Your task to perform on an android device: empty trash in the gmail app Image 0: 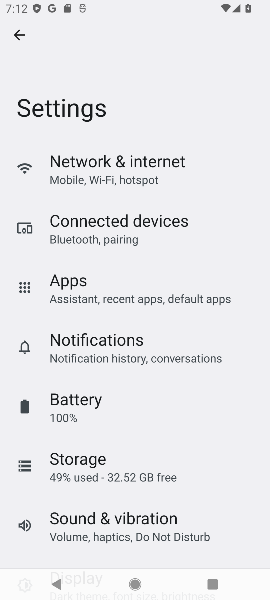
Step 0: press home button
Your task to perform on an android device: empty trash in the gmail app Image 1: 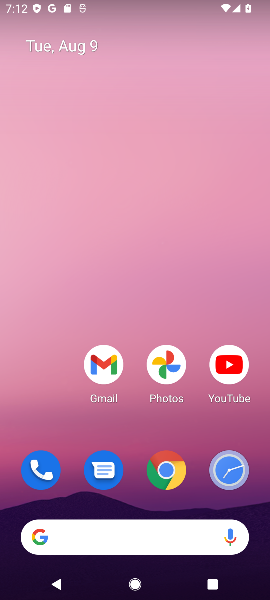
Step 1: click (91, 356)
Your task to perform on an android device: empty trash in the gmail app Image 2: 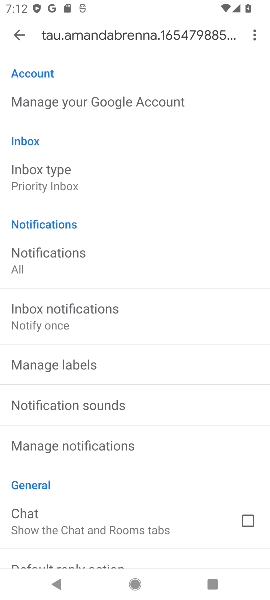
Step 2: click (12, 41)
Your task to perform on an android device: empty trash in the gmail app Image 3: 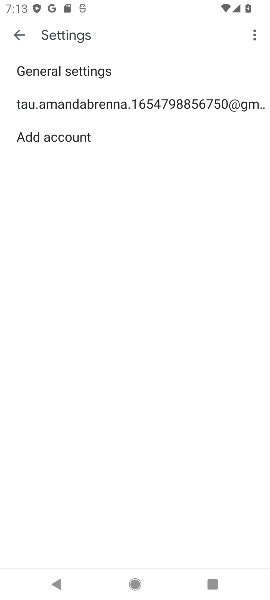
Step 3: click (20, 33)
Your task to perform on an android device: empty trash in the gmail app Image 4: 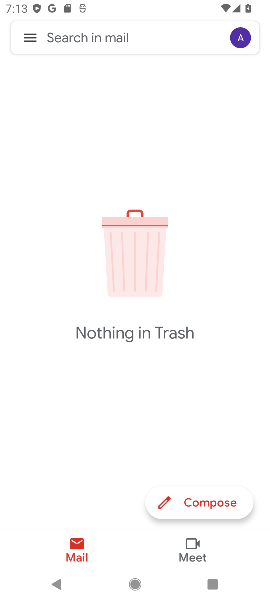
Step 4: click (23, 38)
Your task to perform on an android device: empty trash in the gmail app Image 5: 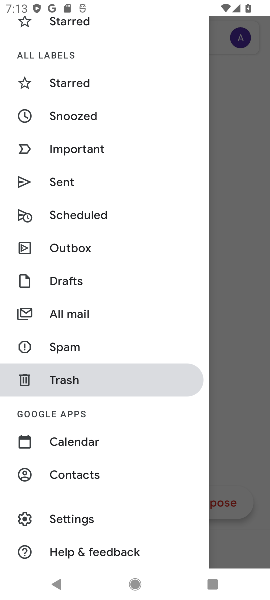
Step 5: click (101, 387)
Your task to perform on an android device: empty trash in the gmail app Image 6: 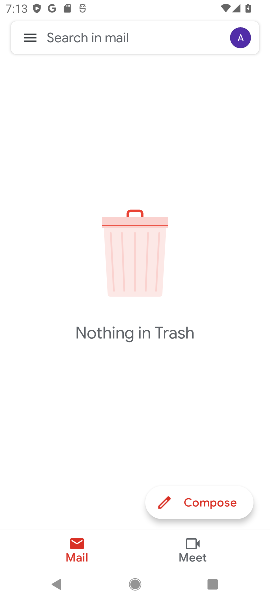
Step 6: task complete